Your task to perform on an android device: Add dell xps to the cart on target, then select checkout. Image 0: 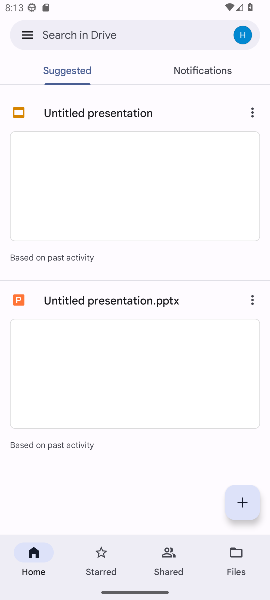
Step 0: press home button
Your task to perform on an android device: Add dell xps to the cart on target, then select checkout. Image 1: 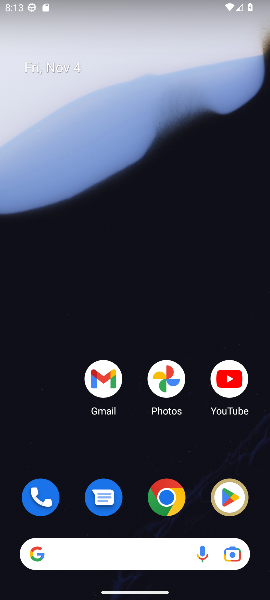
Step 1: click (169, 502)
Your task to perform on an android device: Add dell xps to the cart on target, then select checkout. Image 2: 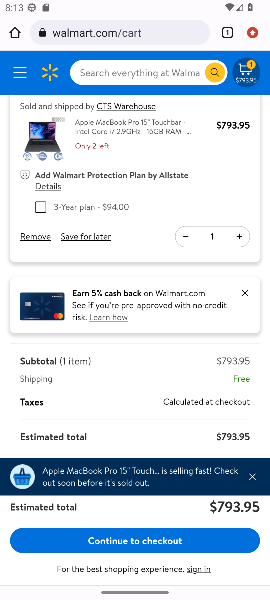
Step 2: click (120, 36)
Your task to perform on an android device: Add dell xps to the cart on target, then select checkout. Image 3: 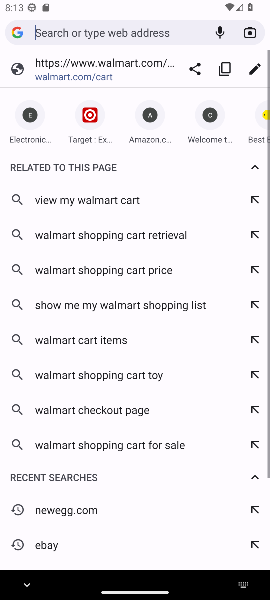
Step 3: click (89, 124)
Your task to perform on an android device: Add dell xps to the cart on target, then select checkout. Image 4: 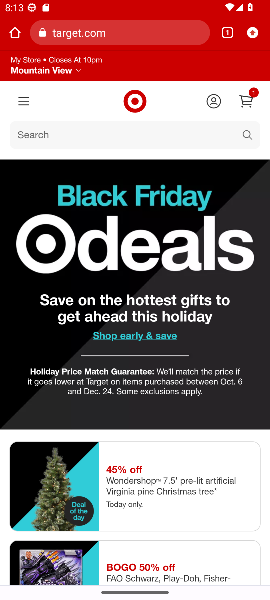
Step 4: click (60, 144)
Your task to perform on an android device: Add dell xps to the cart on target, then select checkout. Image 5: 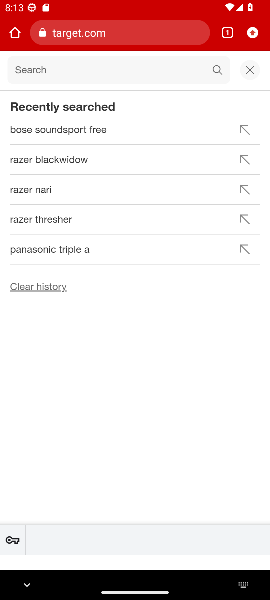
Step 5: type "dell xps"
Your task to perform on an android device: Add dell xps to the cart on target, then select checkout. Image 6: 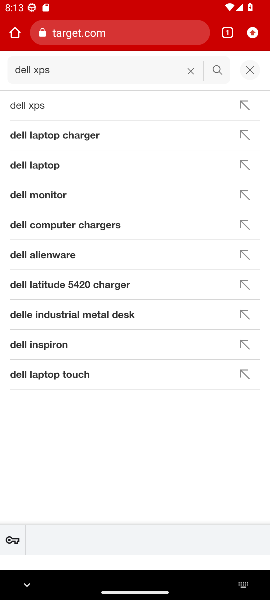
Step 6: click (33, 103)
Your task to perform on an android device: Add dell xps to the cart on target, then select checkout. Image 7: 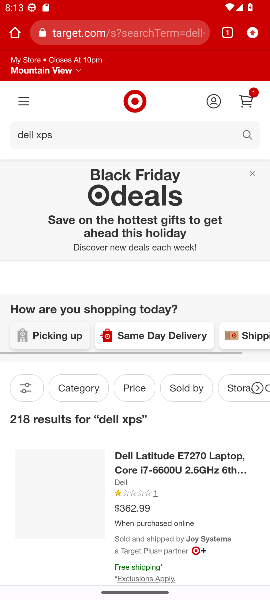
Step 7: task complete